Your task to perform on an android device: Open Wikipedia Image 0: 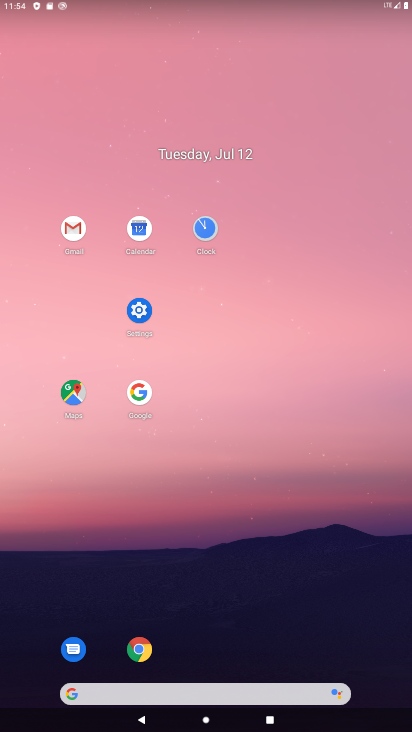
Step 0: click (144, 647)
Your task to perform on an android device: Open Wikipedia Image 1: 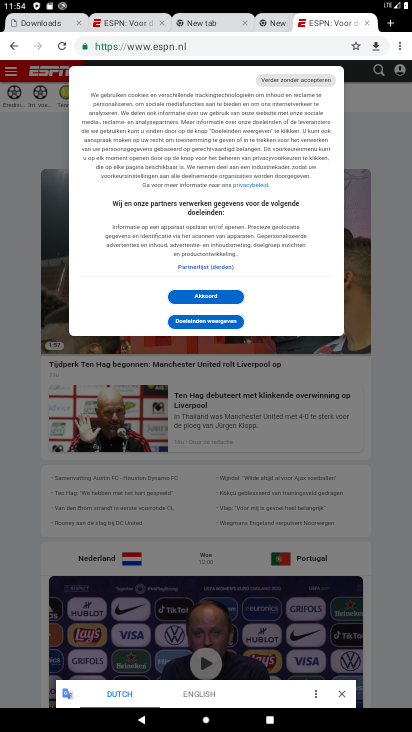
Step 1: click (391, 22)
Your task to perform on an android device: Open Wikipedia Image 2: 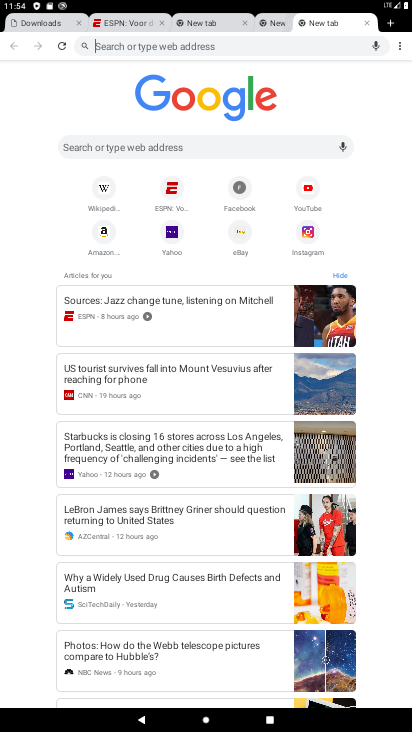
Step 2: click (109, 193)
Your task to perform on an android device: Open Wikipedia Image 3: 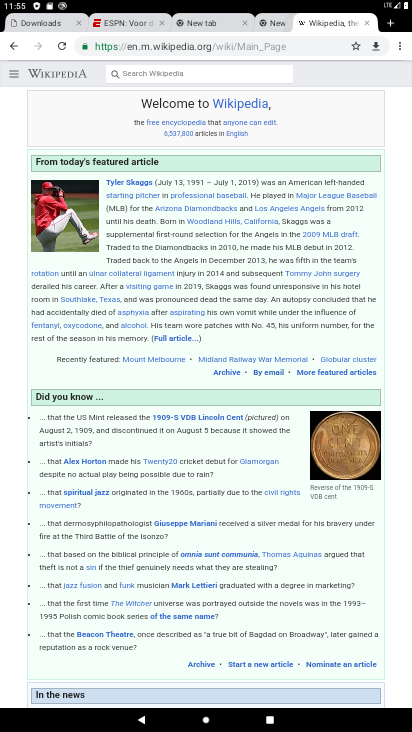
Step 3: task complete